Your task to perform on an android device: open app "Grab" (install if not already installed) Image 0: 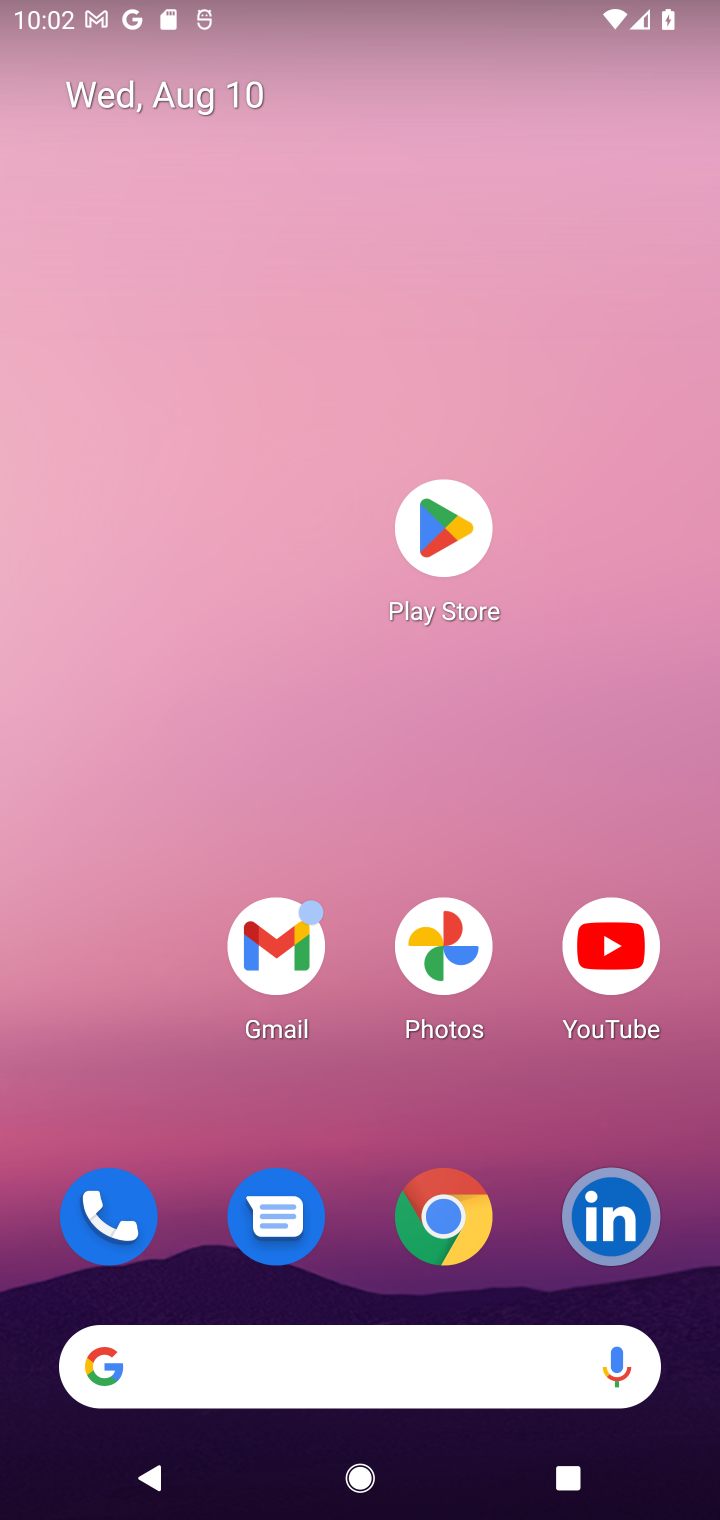
Step 0: press home button
Your task to perform on an android device: open app "Grab" (install if not already installed) Image 1: 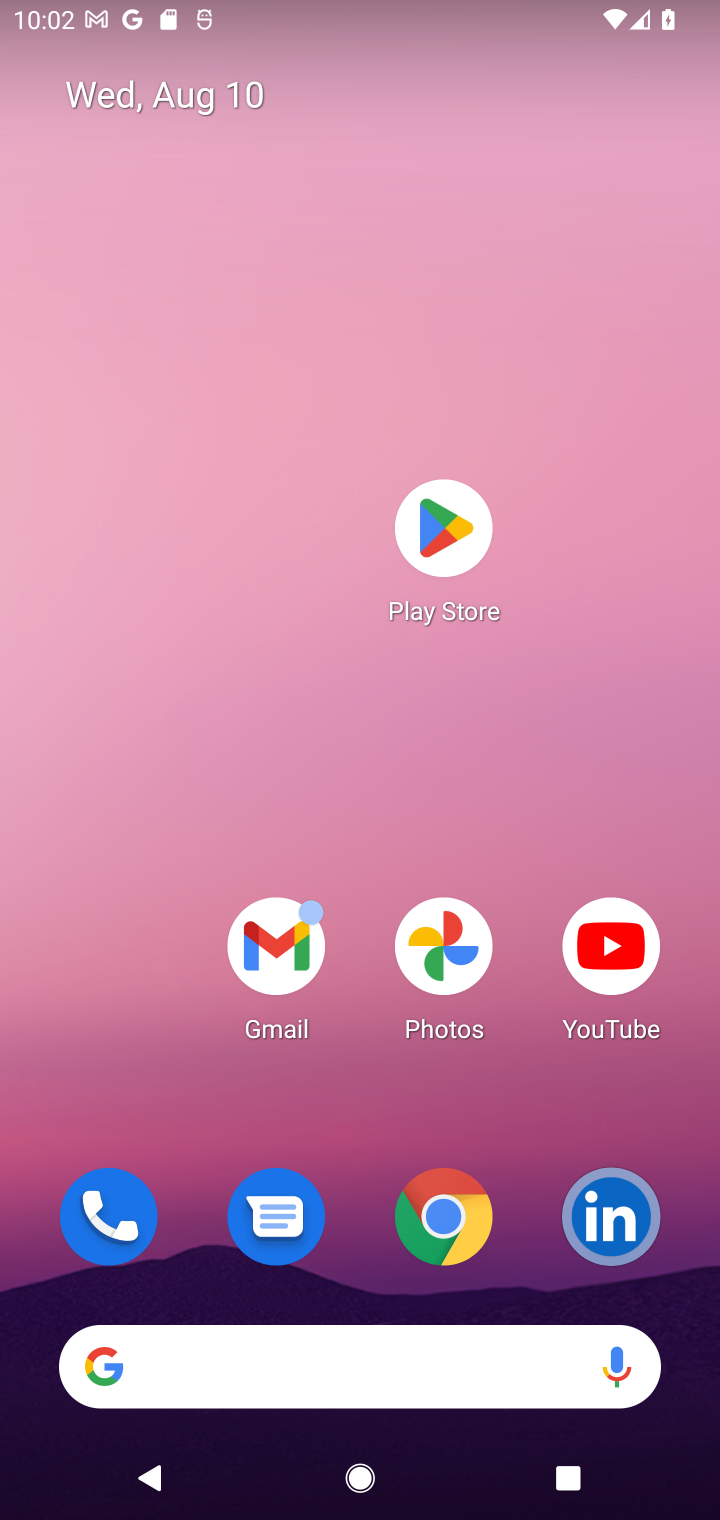
Step 1: click (450, 530)
Your task to perform on an android device: open app "Grab" (install if not already installed) Image 2: 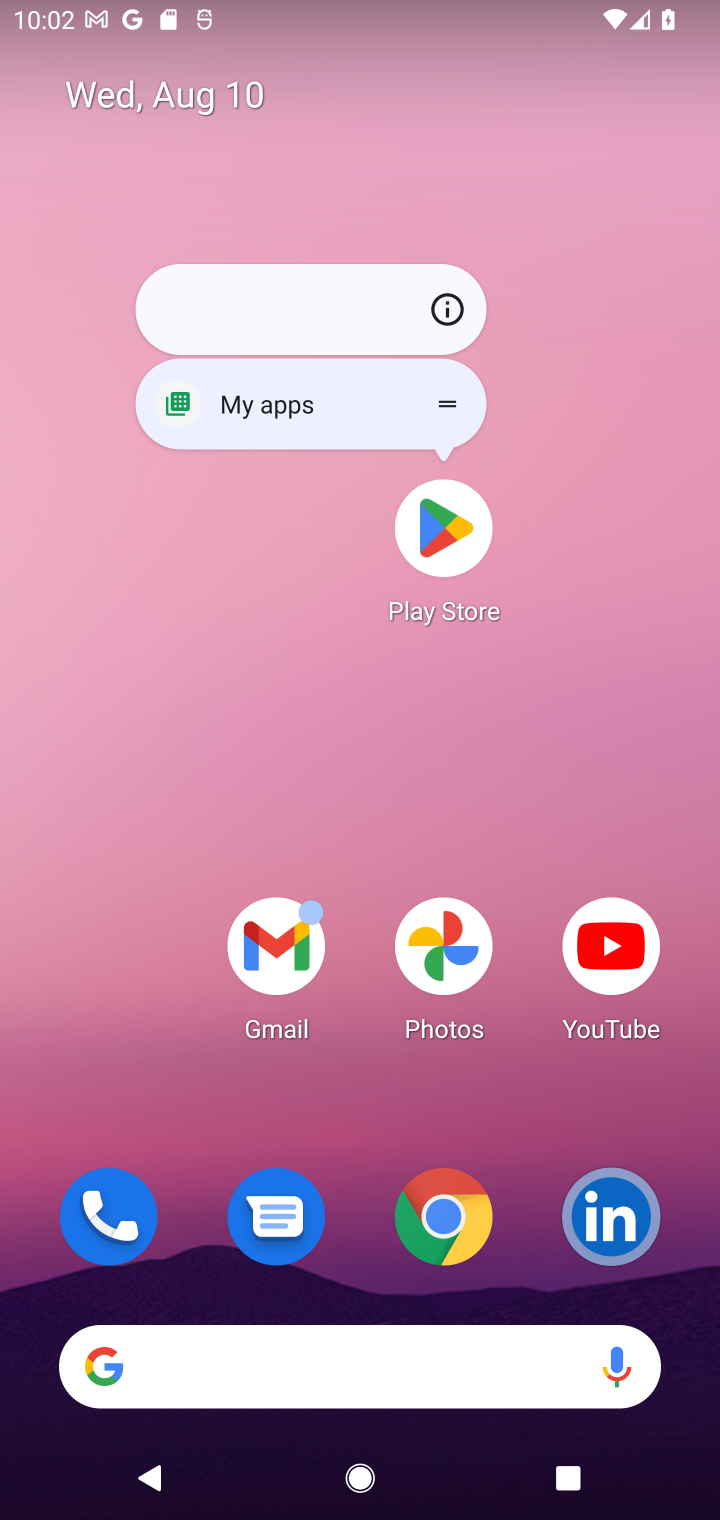
Step 2: click (450, 532)
Your task to perform on an android device: open app "Grab" (install if not already installed) Image 3: 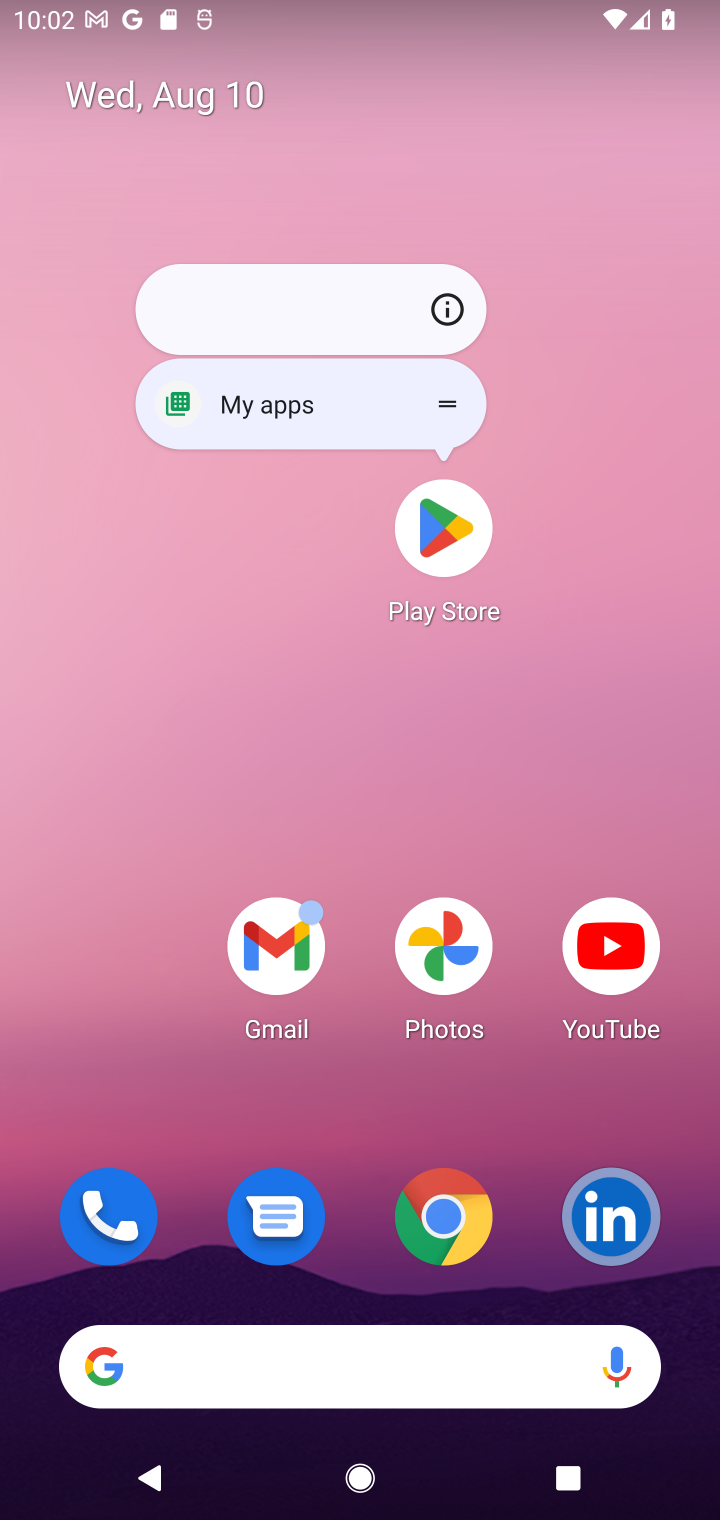
Step 3: click (450, 536)
Your task to perform on an android device: open app "Grab" (install if not already installed) Image 4: 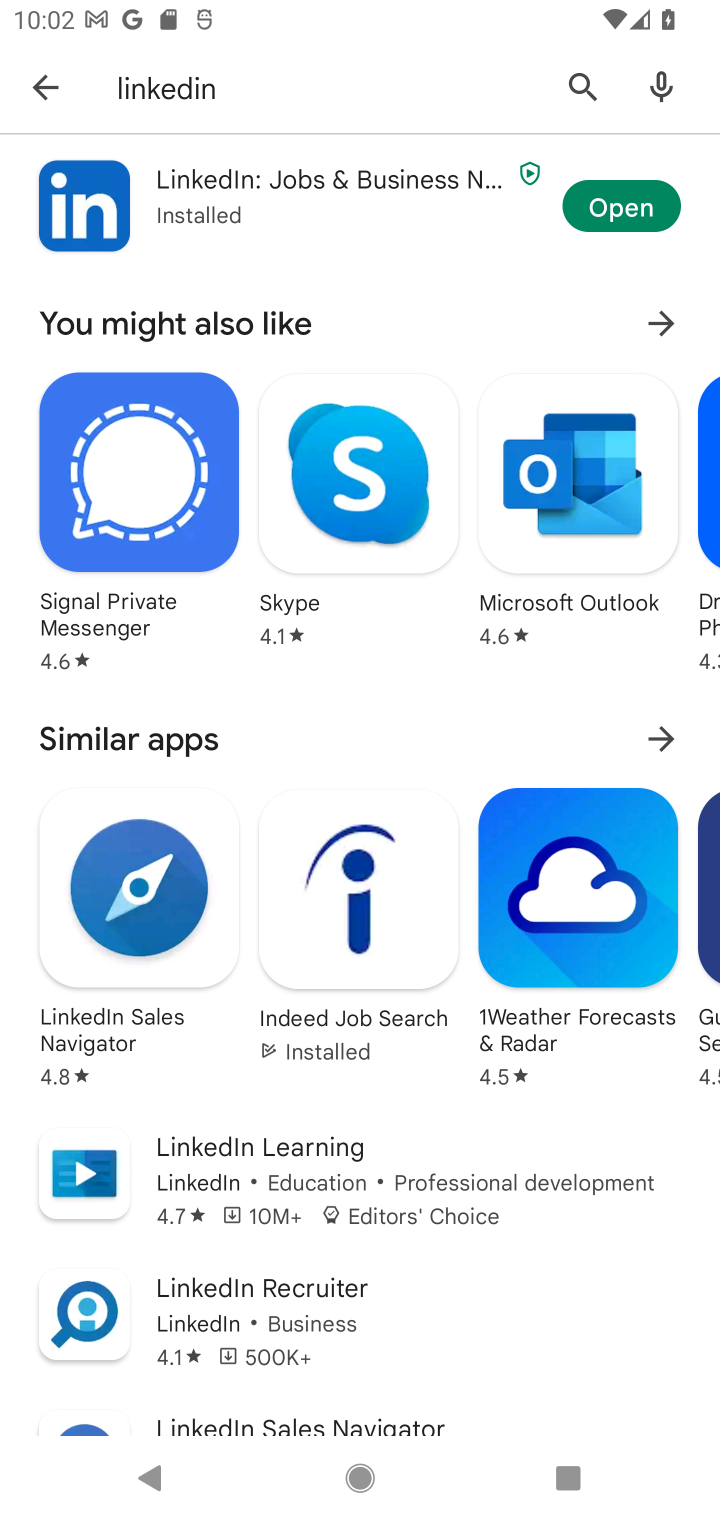
Step 4: click (569, 75)
Your task to perform on an android device: open app "Grab" (install if not already installed) Image 5: 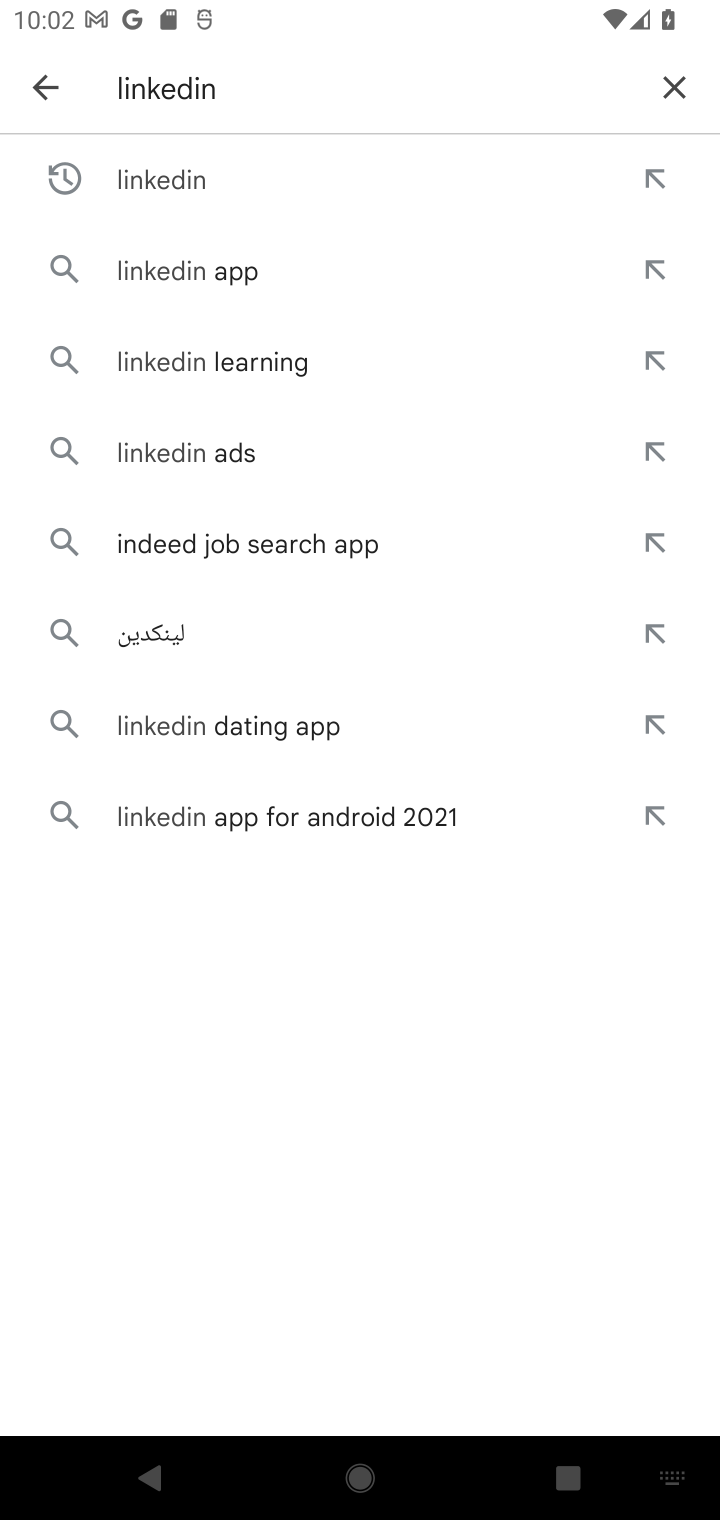
Step 5: click (675, 85)
Your task to perform on an android device: open app "Grab" (install if not already installed) Image 6: 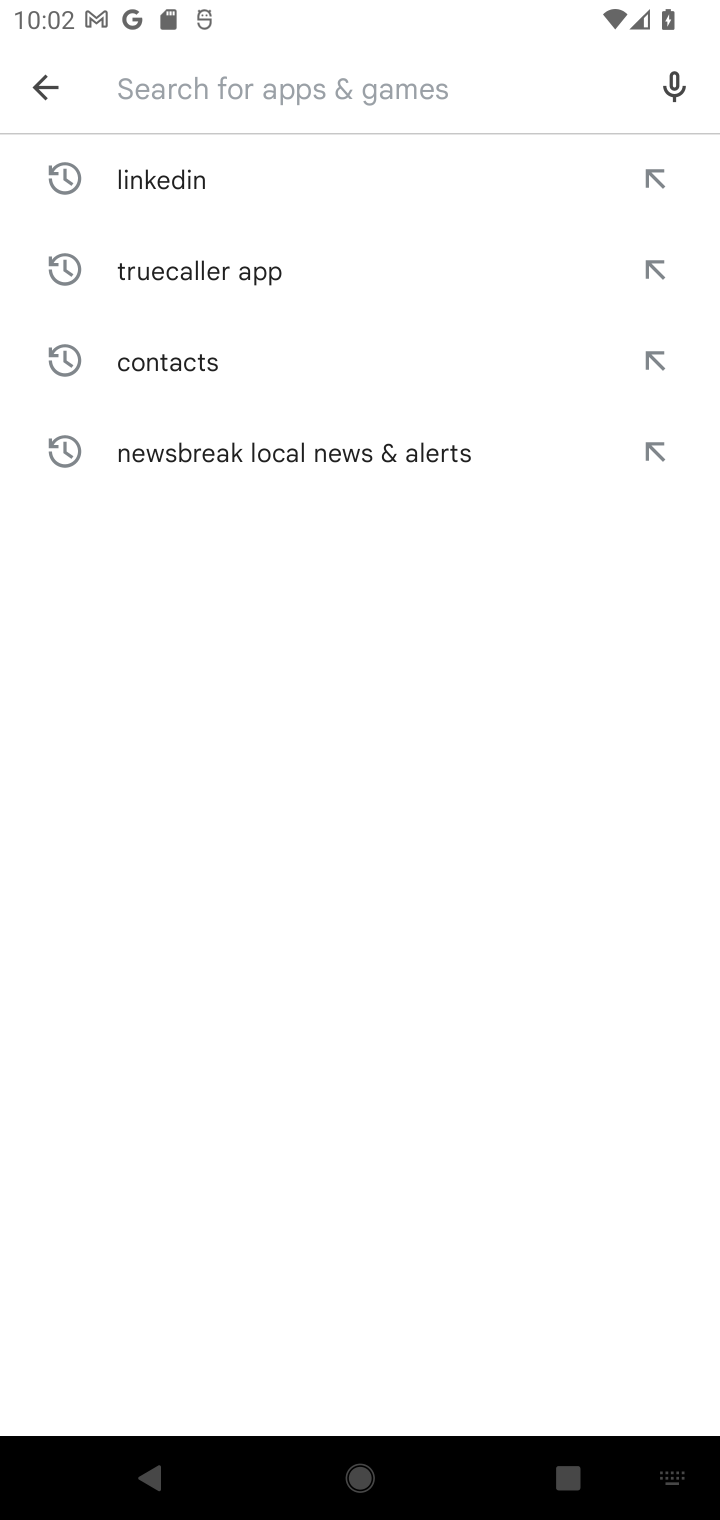
Step 6: type "Grab"
Your task to perform on an android device: open app "Grab" (install if not already installed) Image 7: 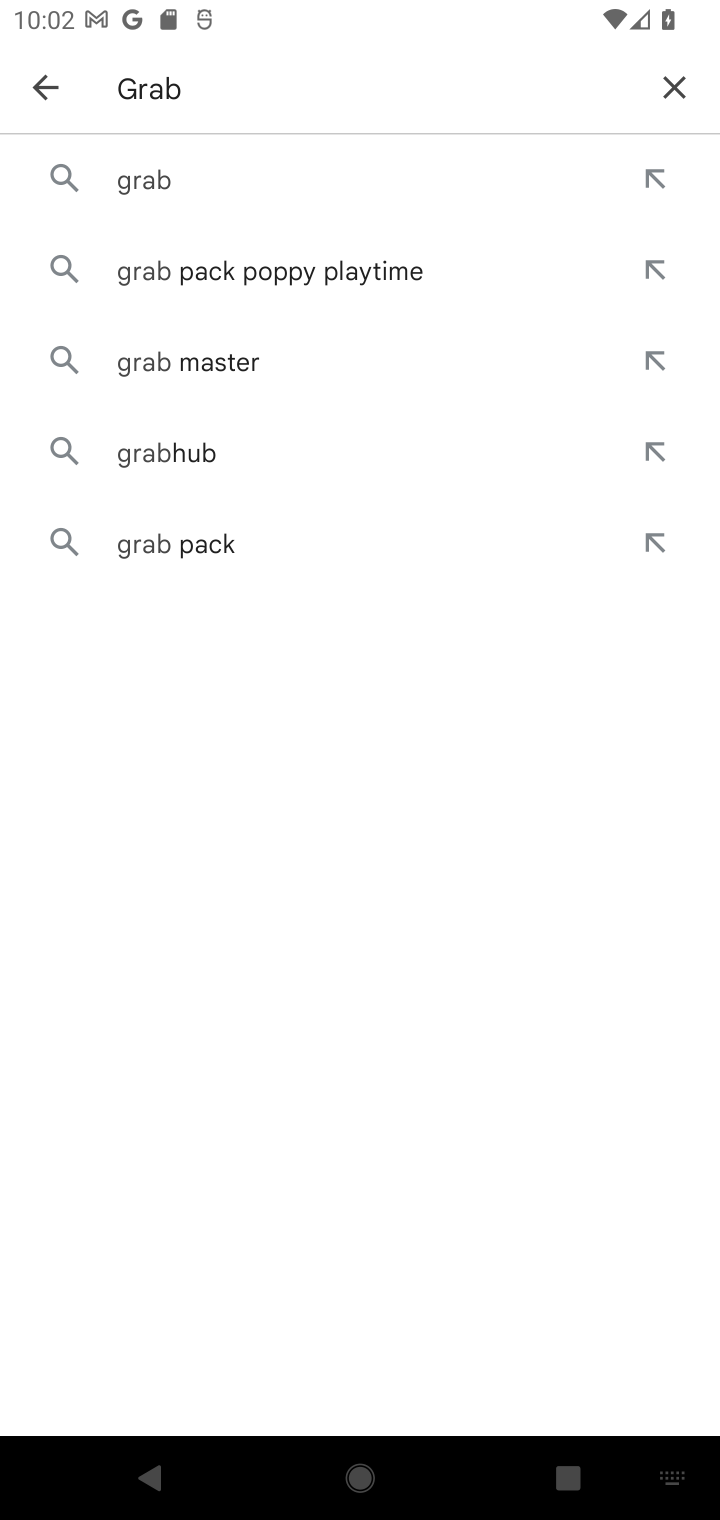
Step 7: click (154, 182)
Your task to perform on an android device: open app "Grab" (install if not already installed) Image 8: 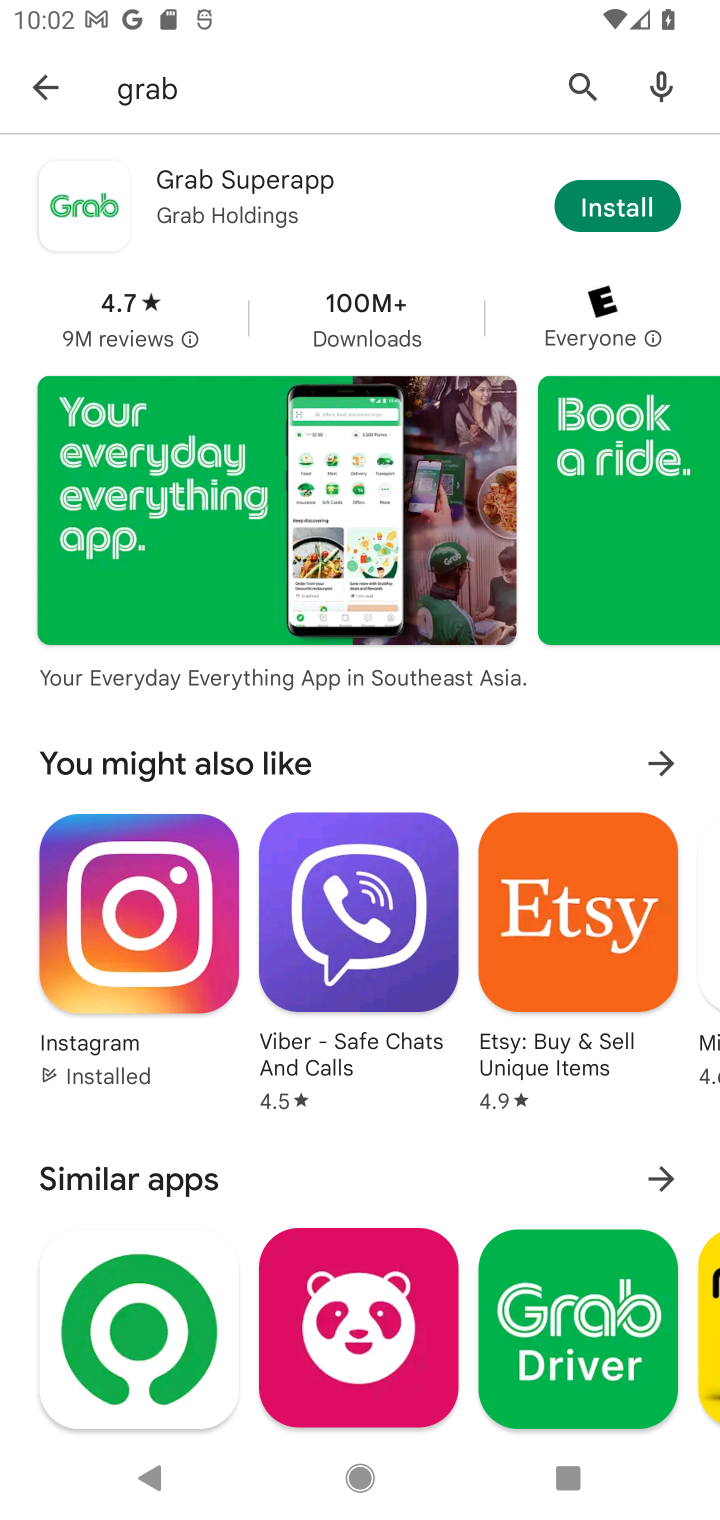
Step 8: click (601, 203)
Your task to perform on an android device: open app "Grab" (install if not already installed) Image 9: 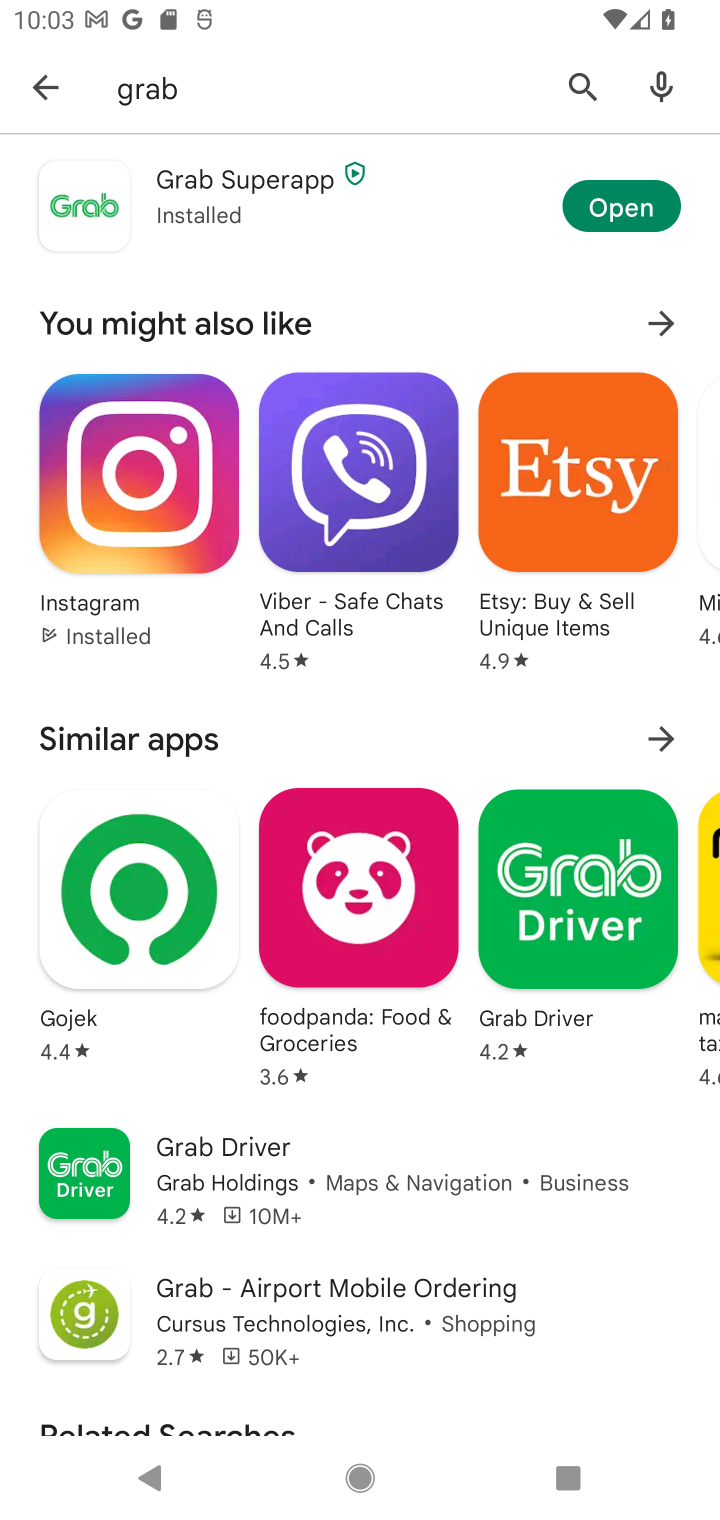
Step 9: click (609, 211)
Your task to perform on an android device: open app "Grab" (install if not already installed) Image 10: 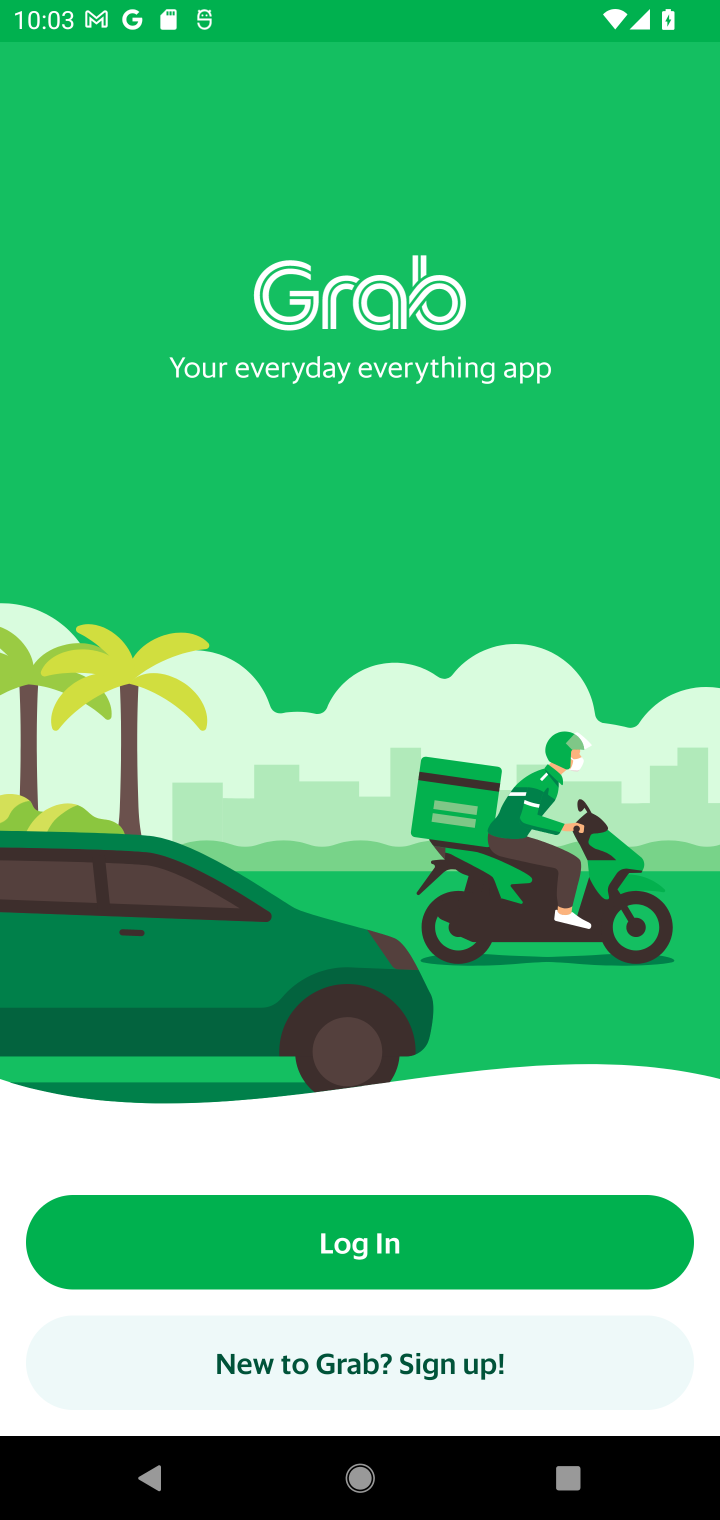
Step 10: task complete